Your task to perform on an android device: toggle priority inbox in the gmail app Image 0: 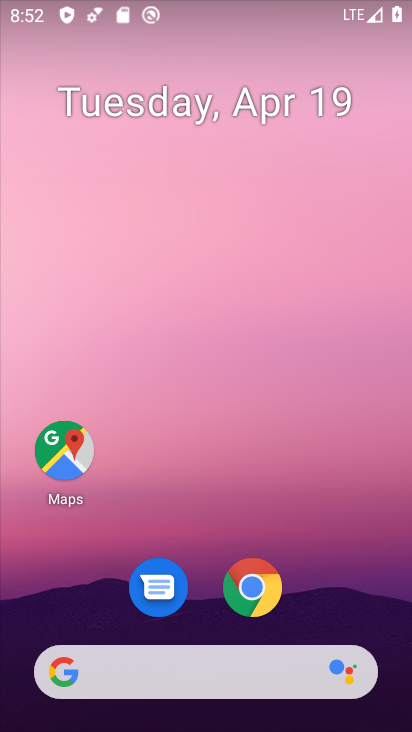
Step 0: drag from (357, 616) to (371, 1)
Your task to perform on an android device: toggle priority inbox in the gmail app Image 1: 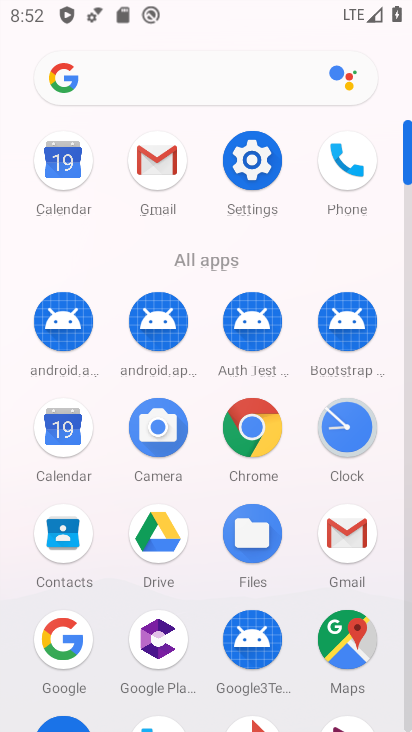
Step 1: click (150, 166)
Your task to perform on an android device: toggle priority inbox in the gmail app Image 2: 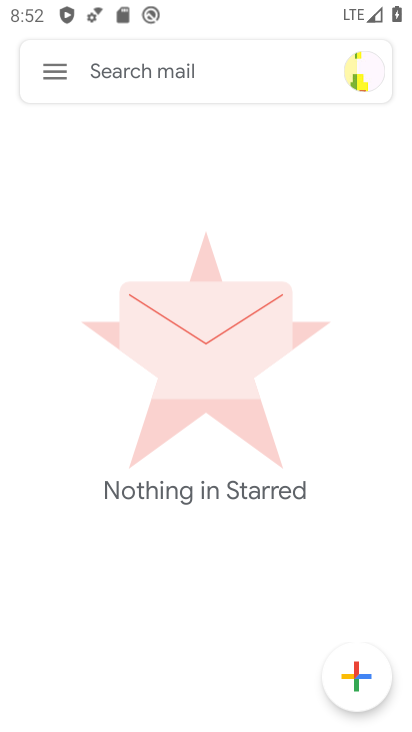
Step 2: click (63, 77)
Your task to perform on an android device: toggle priority inbox in the gmail app Image 3: 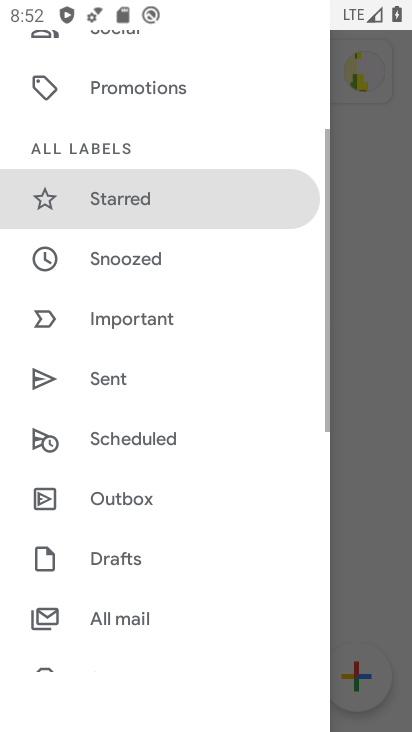
Step 3: drag from (220, 601) to (220, 213)
Your task to perform on an android device: toggle priority inbox in the gmail app Image 4: 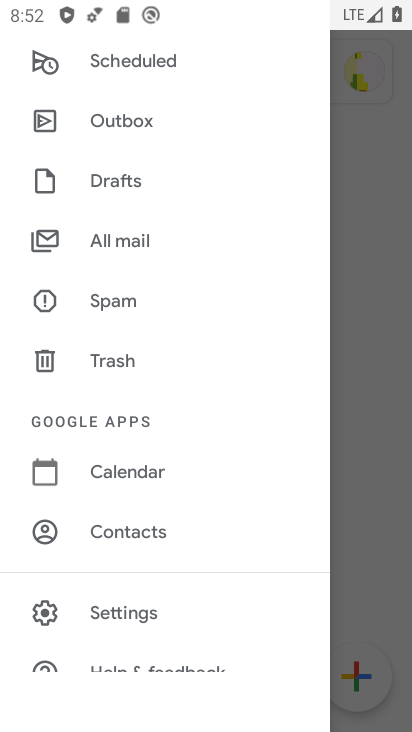
Step 4: click (117, 614)
Your task to perform on an android device: toggle priority inbox in the gmail app Image 5: 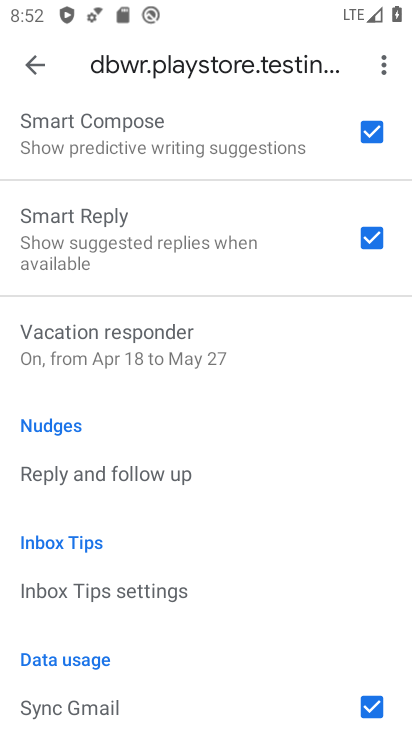
Step 5: drag from (199, 497) to (185, 692)
Your task to perform on an android device: toggle priority inbox in the gmail app Image 6: 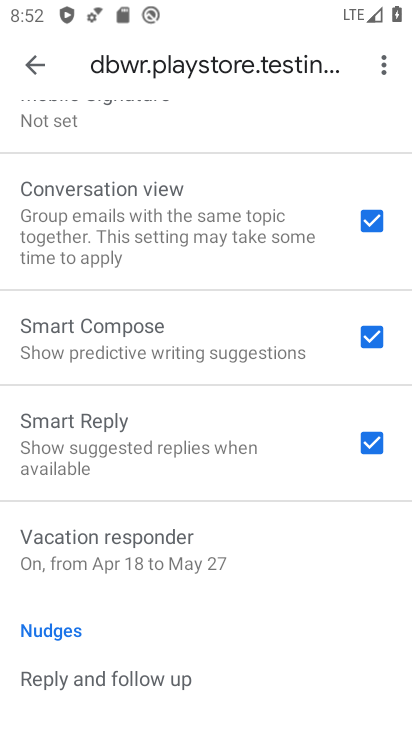
Step 6: drag from (174, 275) to (186, 623)
Your task to perform on an android device: toggle priority inbox in the gmail app Image 7: 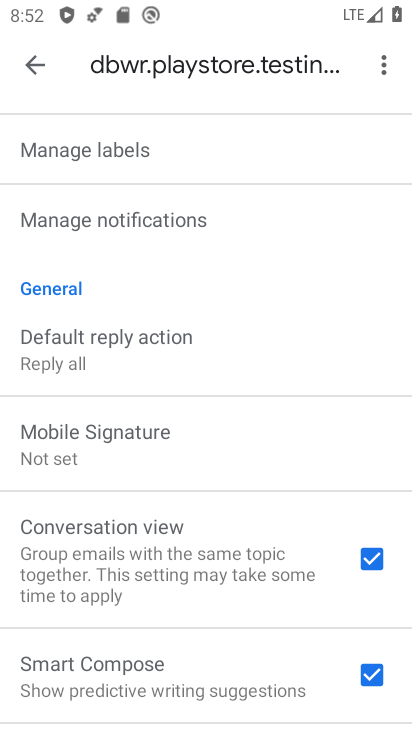
Step 7: drag from (165, 300) to (164, 608)
Your task to perform on an android device: toggle priority inbox in the gmail app Image 8: 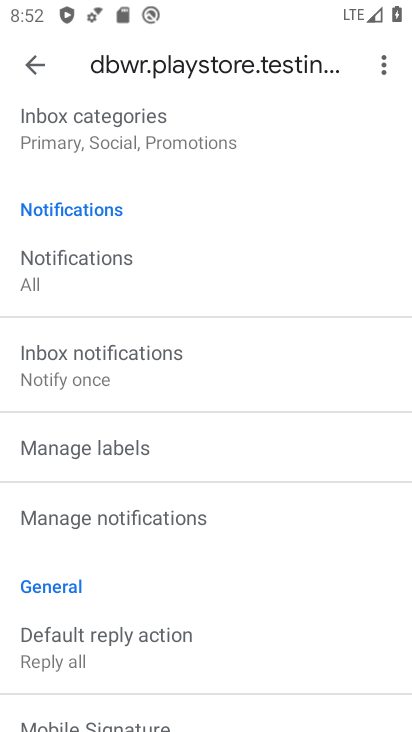
Step 8: drag from (177, 248) to (162, 556)
Your task to perform on an android device: toggle priority inbox in the gmail app Image 9: 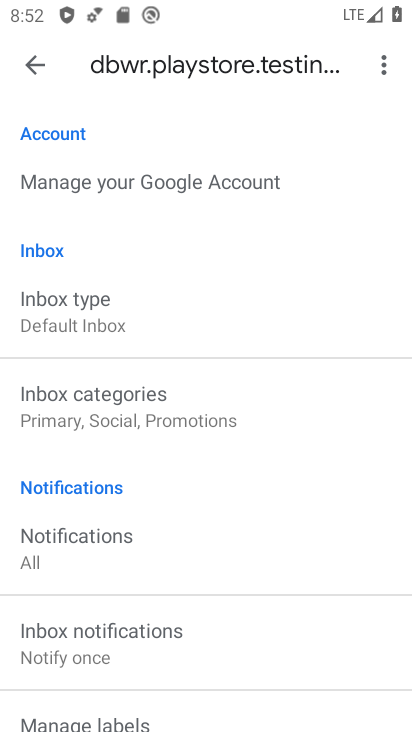
Step 9: click (69, 326)
Your task to perform on an android device: toggle priority inbox in the gmail app Image 10: 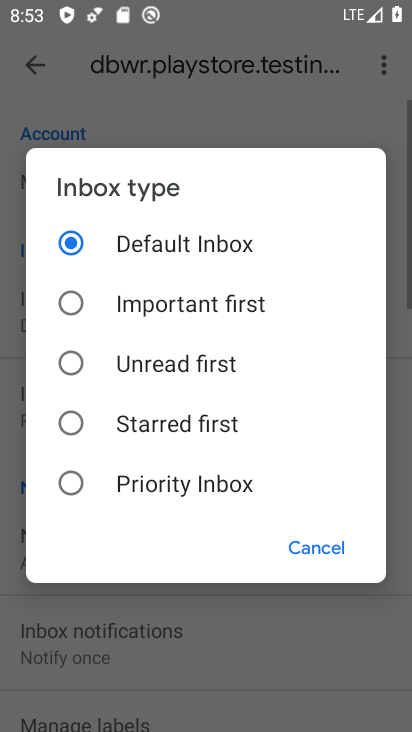
Step 10: click (74, 483)
Your task to perform on an android device: toggle priority inbox in the gmail app Image 11: 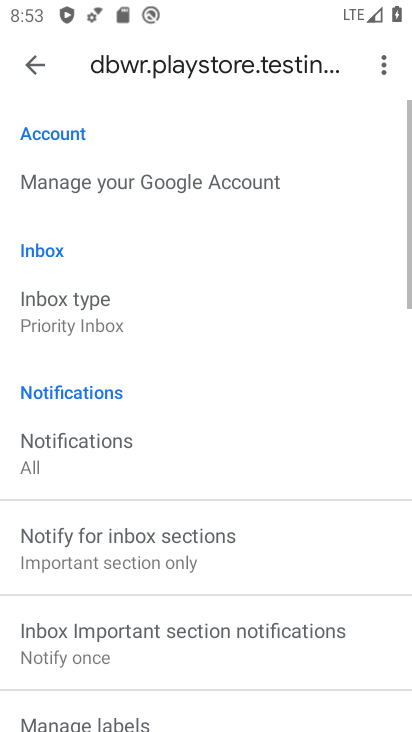
Step 11: task complete